Your task to perform on an android device: Go to display settings Image 0: 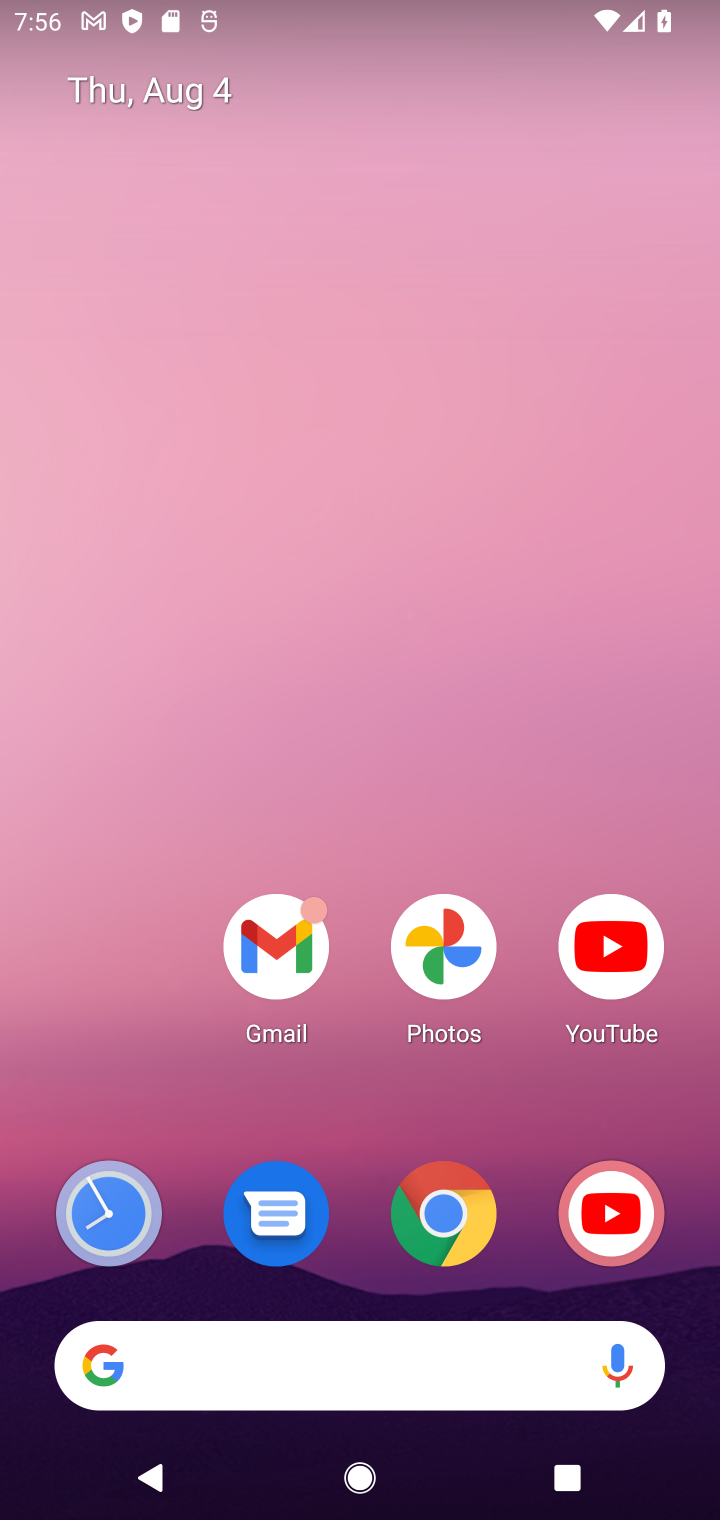
Step 0: drag from (335, 1263) to (391, 71)
Your task to perform on an android device: Go to display settings Image 1: 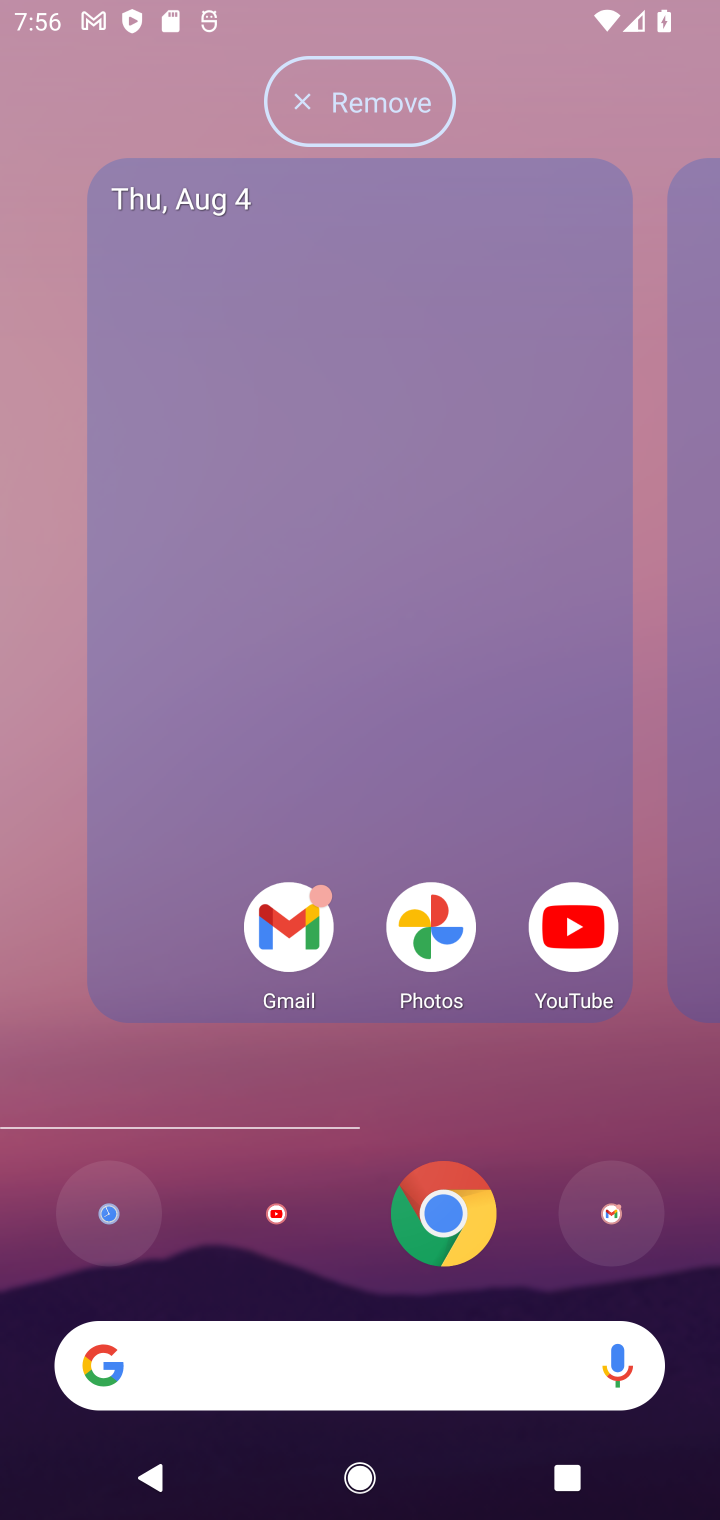
Step 1: click (493, 364)
Your task to perform on an android device: Go to display settings Image 2: 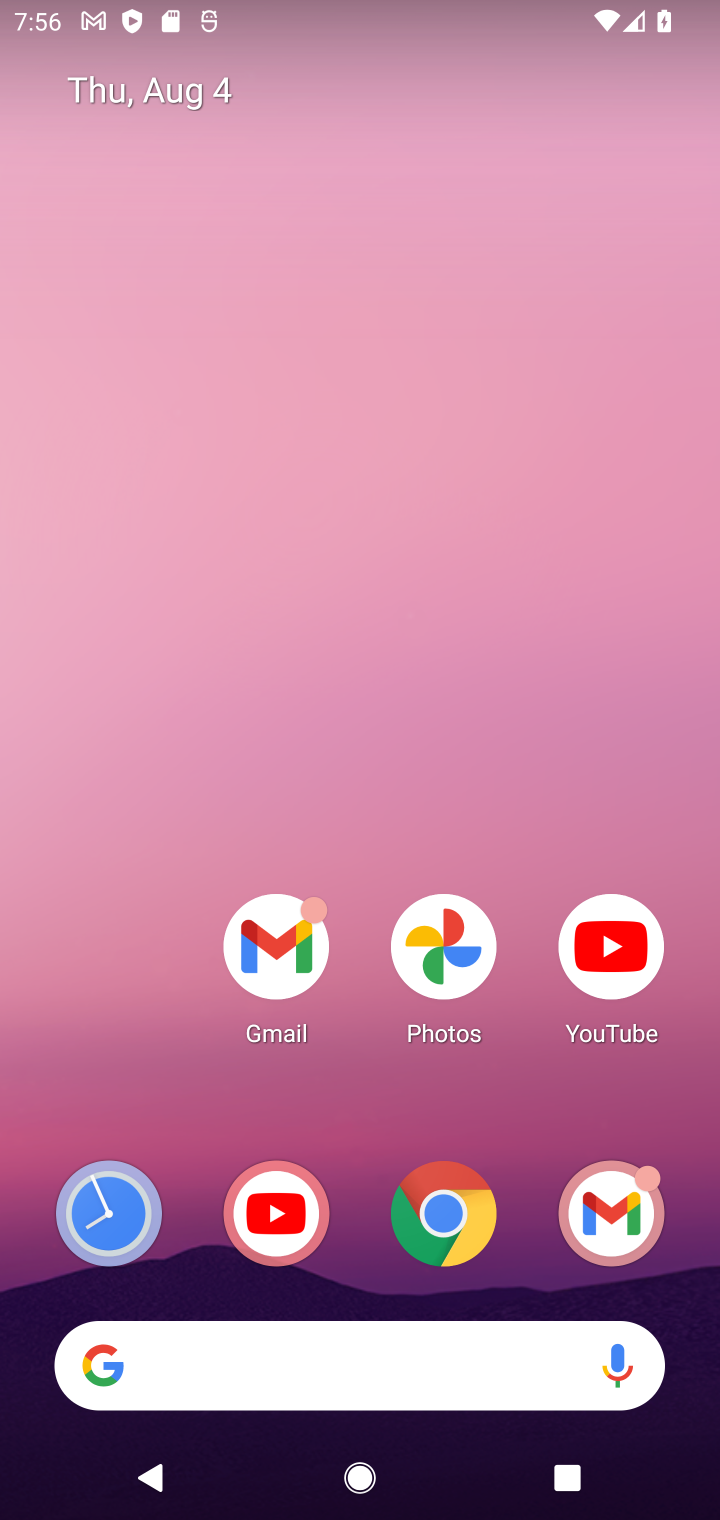
Step 2: drag from (364, 1291) to (473, 19)
Your task to perform on an android device: Go to display settings Image 3: 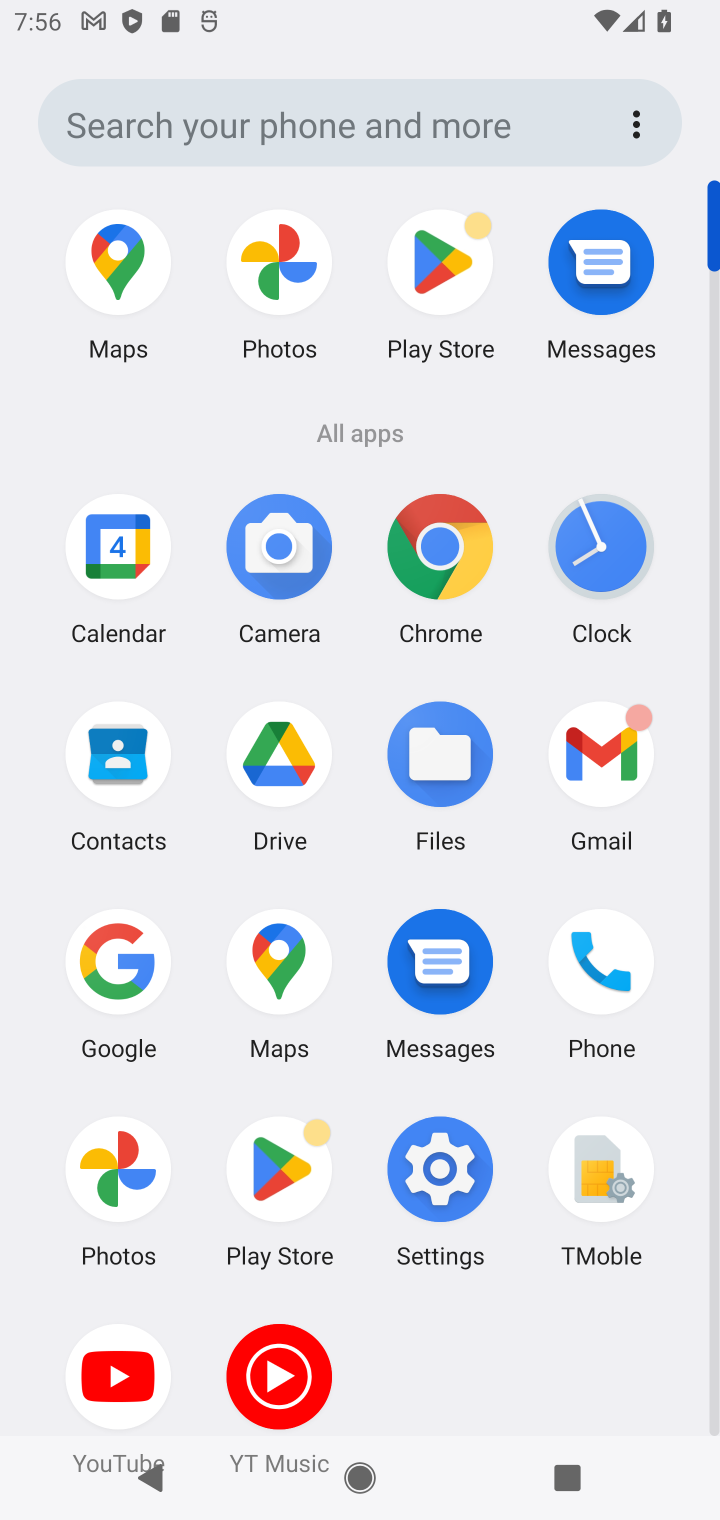
Step 3: click (413, 1232)
Your task to perform on an android device: Go to display settings Image 4: 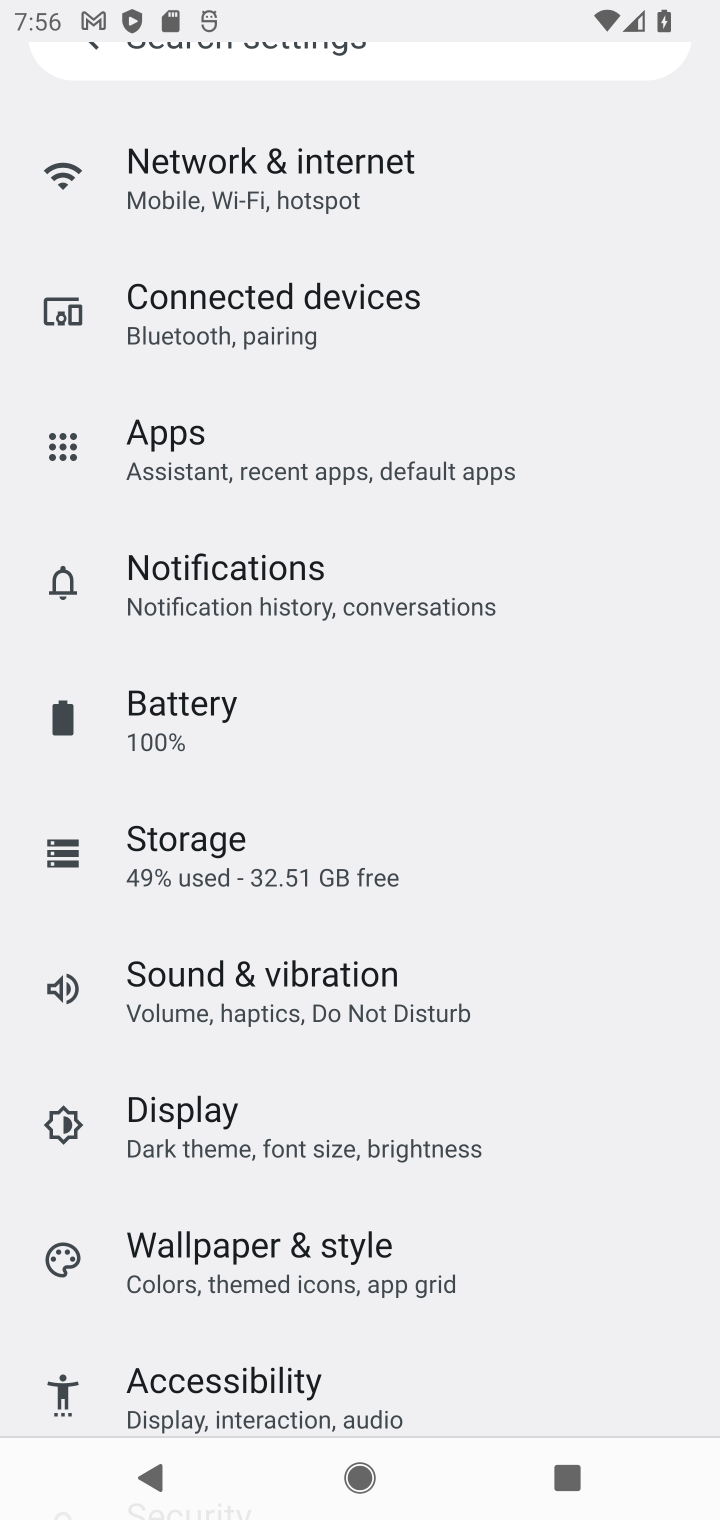
Step 4: click (302, 1115)
Your task to perform on an android device: Go to display settings Image 5: 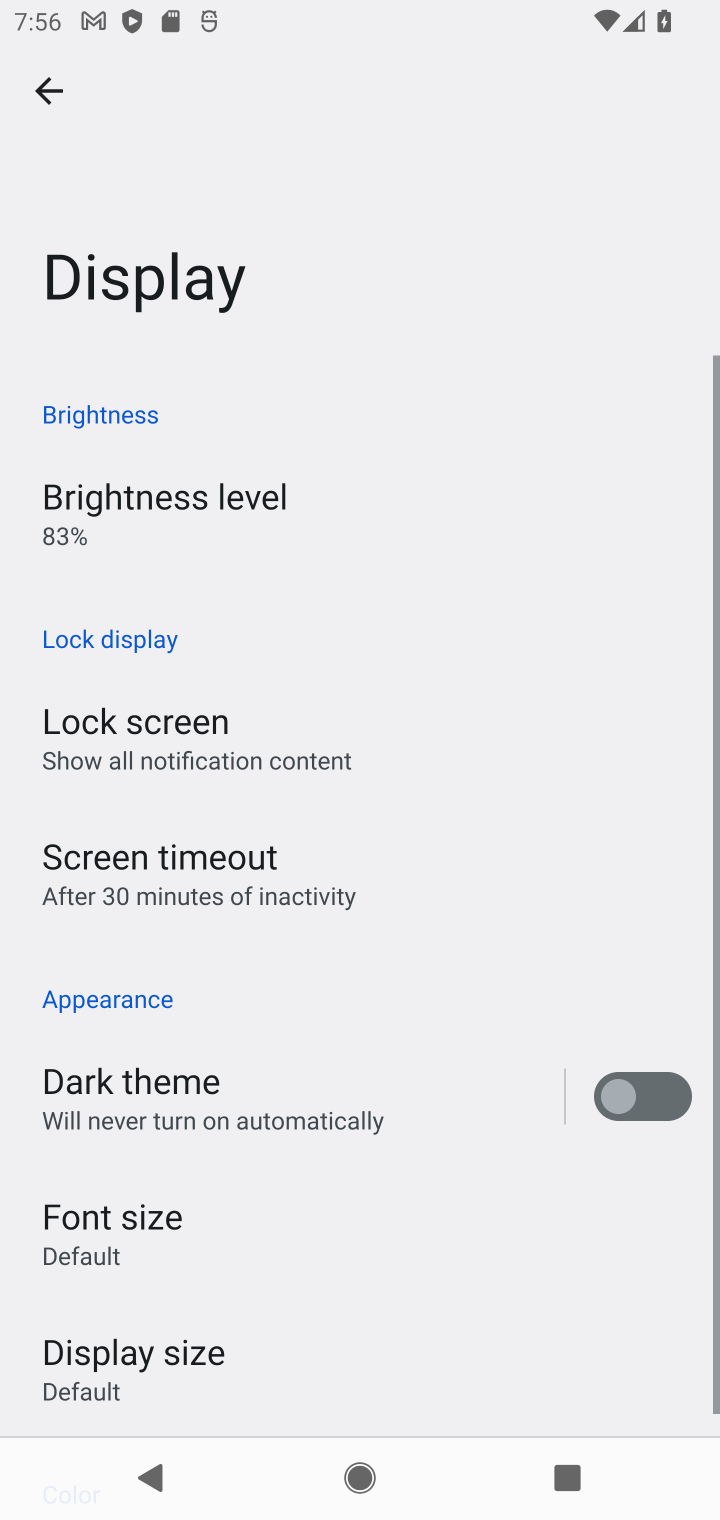
Step 5: task complete